Your task to perform on an android device: toggle notifications settings in the gmail app Image 0: 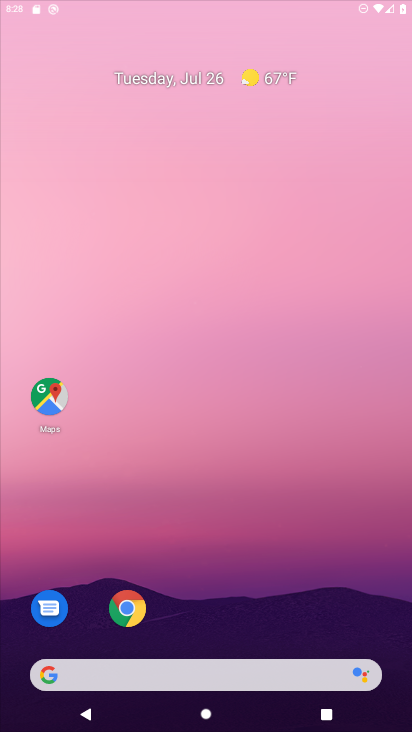
Step 0: click (389, 36)
Your task to perform on an android device: toggle notifications settings in the gmail app Image 1: 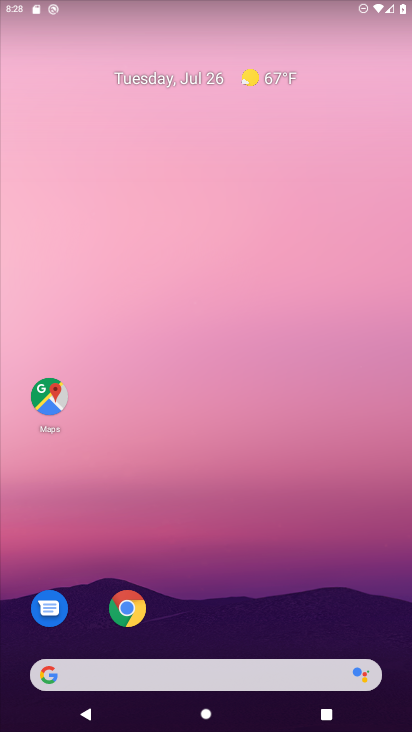
Step 1: drag from (216, 586) to (310, 9)
Your task to perform on an android device: toggle notifications settings in the gmail app Image 2: 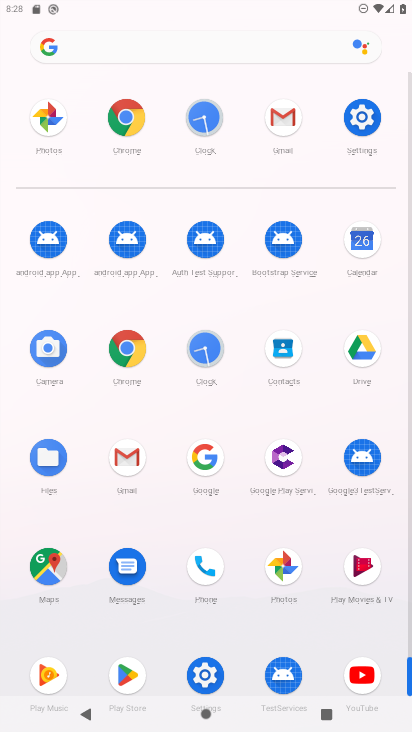
Step 2: click (131, 465)
Your task to perform on an android device: toggle notifications settings in the gmail app Image 3: 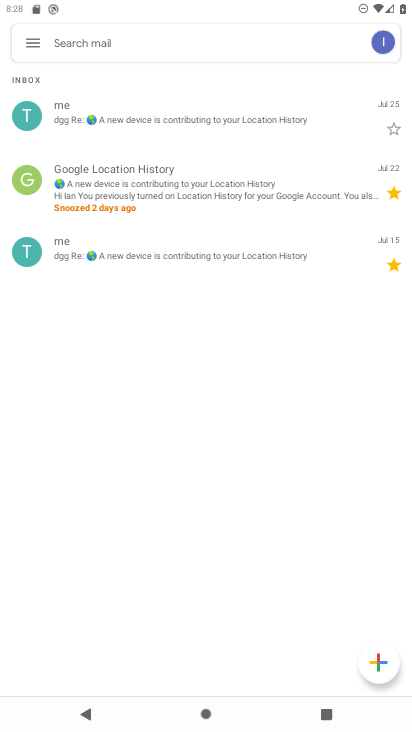
Step 3: click (37, 38)
Your task to perform on an android device: toggle notifications settings in the gmail app Image 4: 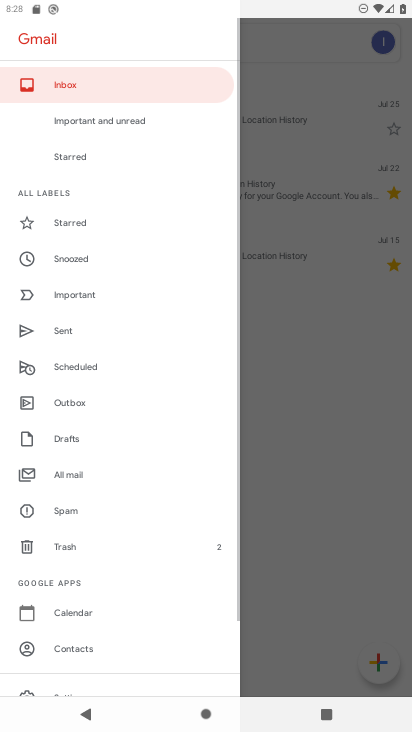
Step 4: drag from (86, 626) to (124, 184)
Your task to perform on an android device: toggle notifications settings in the gmail app Image 5: 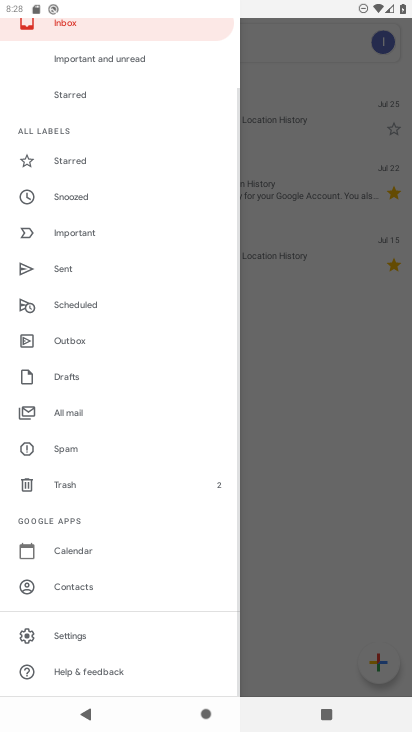
Step 5: click (79, 630)
Your task to perform on an android device: toggle notifications settings in the gmail app Image 6: 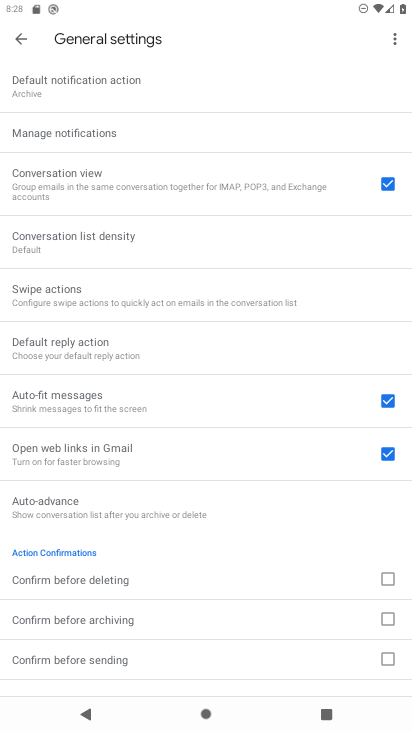
Step 6: click (91, 138)
Your task to perform on an android device: toggle notifications settings in the gmail app Image 7: 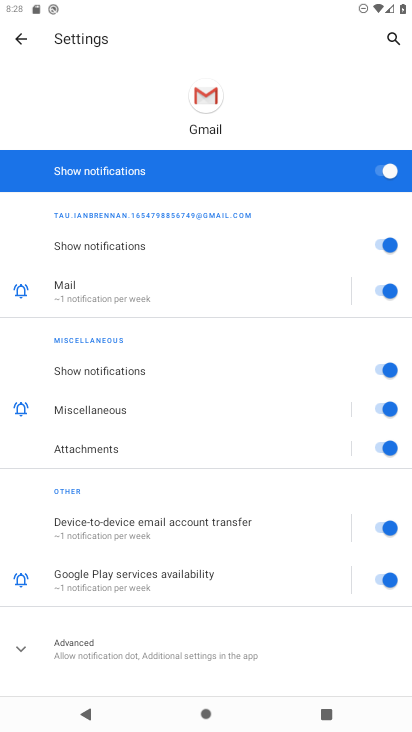
Step 7: click (362, 176)
Your task to perform on an android device: toggle notifications settings in the gmail app Image 8: 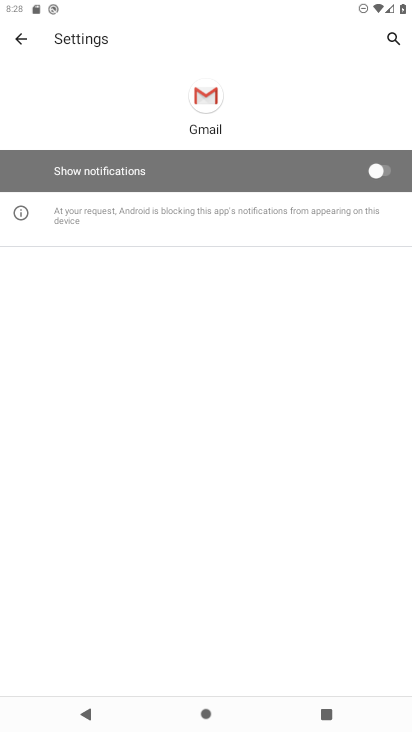
Step 8: task complete